Your task to perform on an android device: turn vacation reply on in the gmail app Image 0: 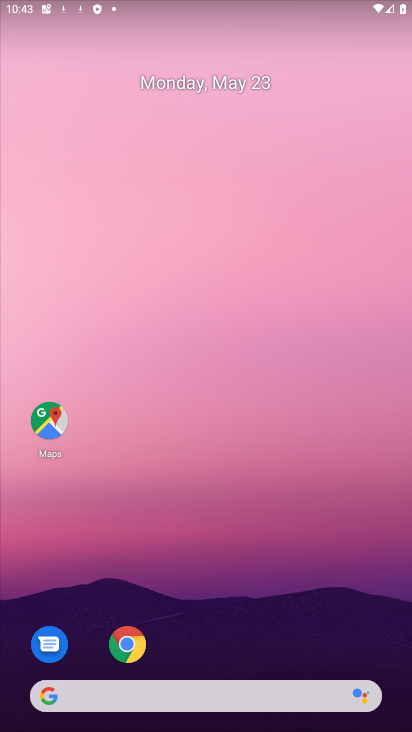
Step 0: drag from (243, 724) to (266, 85)
Your task to perform on an android device: turn vacation reply on in the gmail app Image 1: 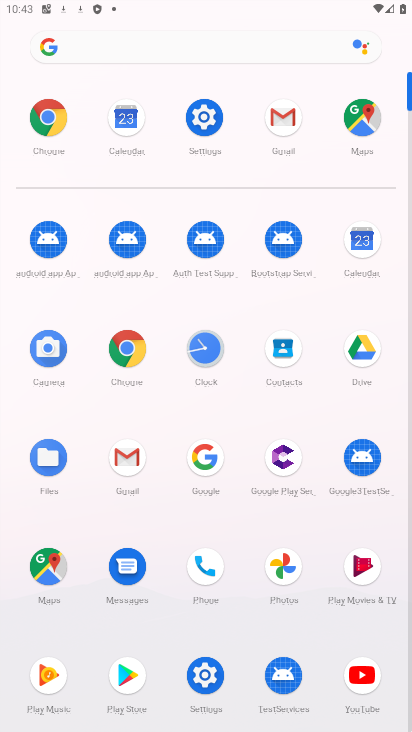
Step 1: click (283, 119)
Your task to perform on an android device: turn vacation reply on in the gmail app Image 2: 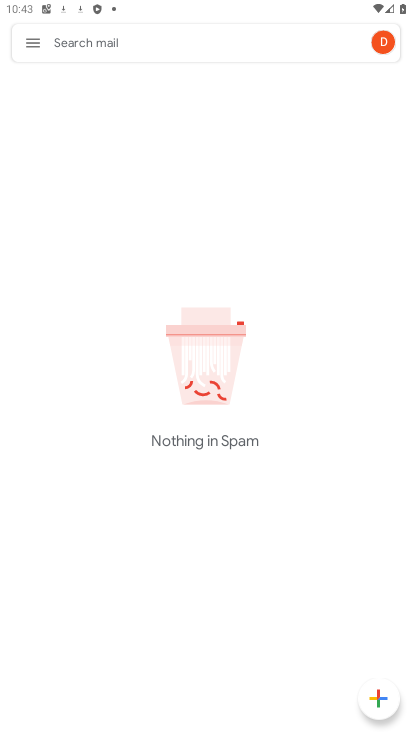
Step 2: click (34, 56)
Your task to perform on an android device: turn vacation reply on in the gmail app Image 3: 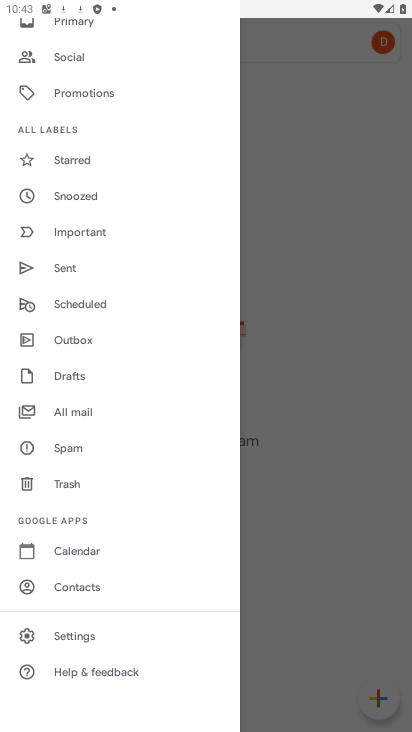
Step 3: click (83, 628)
Your task to perform on an android device: turn vacation reply on in the gmail app Image 4: 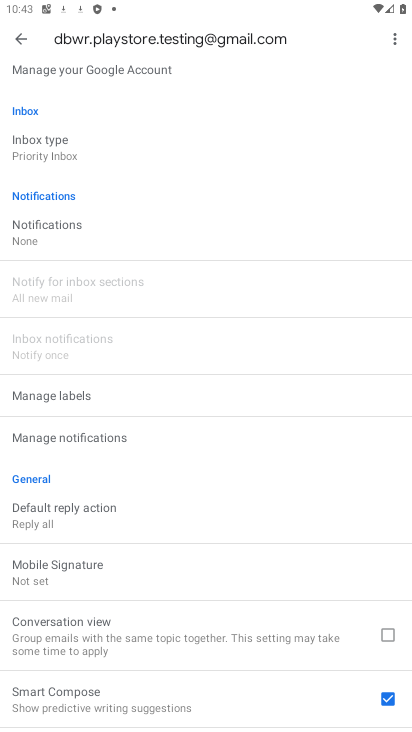
Step 4: drag from (149, 590) to (188, 310)
Your task to perform on an android device: turn vacation reply on in the gmail app Image 5: 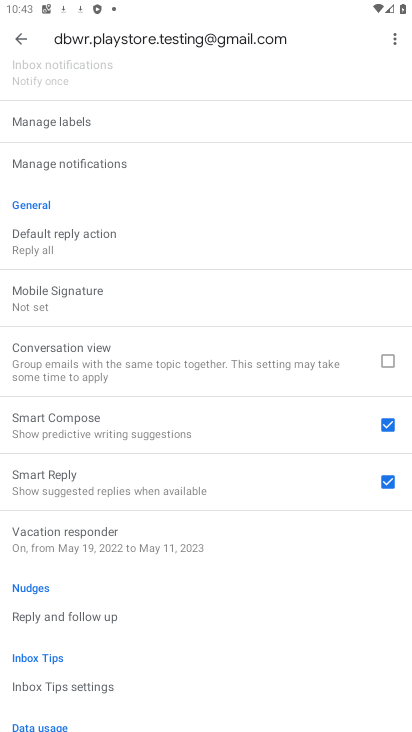
Step 5: click (101, 542)
Your task to perform on an android device: turn vacation reply on in the gmail app Image 6: 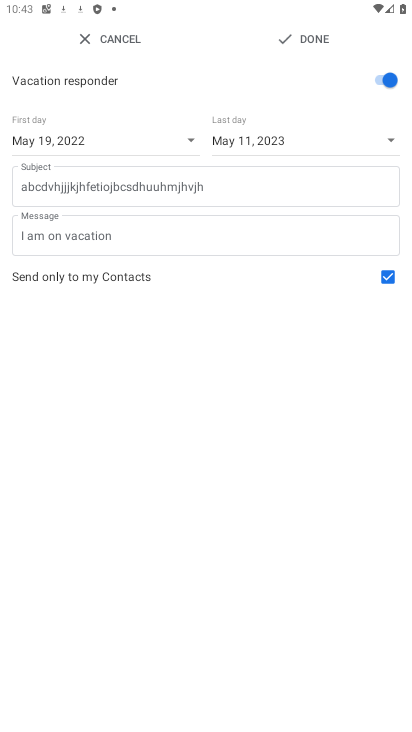
Step 6: task complete